Your task to perform on an android device: View the shopping cart on target. Search for "razer blade" on target, select the first entry, and add it to the cart. Image 0: 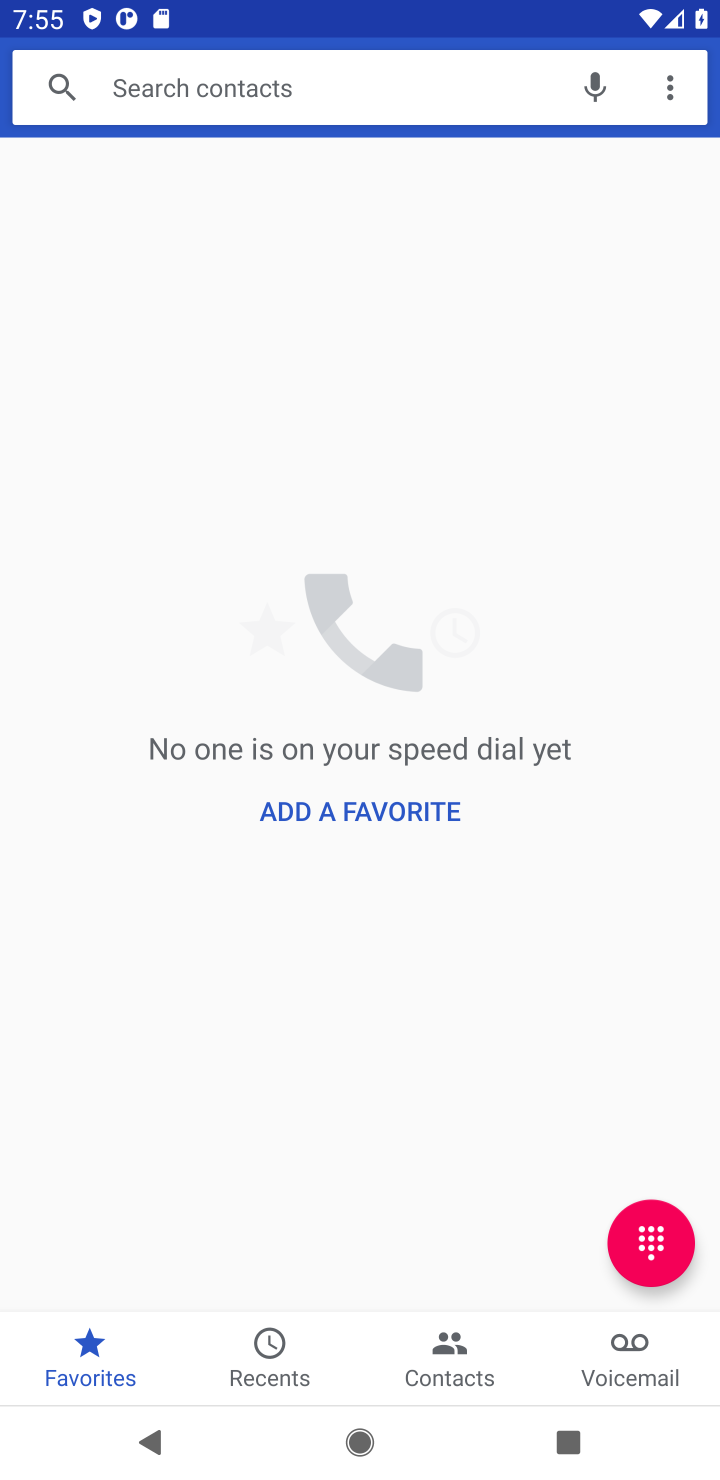
Step 0: press home button
Your task to perform on an android device: View the shopping cart on target. Search for "razer blade" on target, select the first entry, and add it to the cart. Image 1: 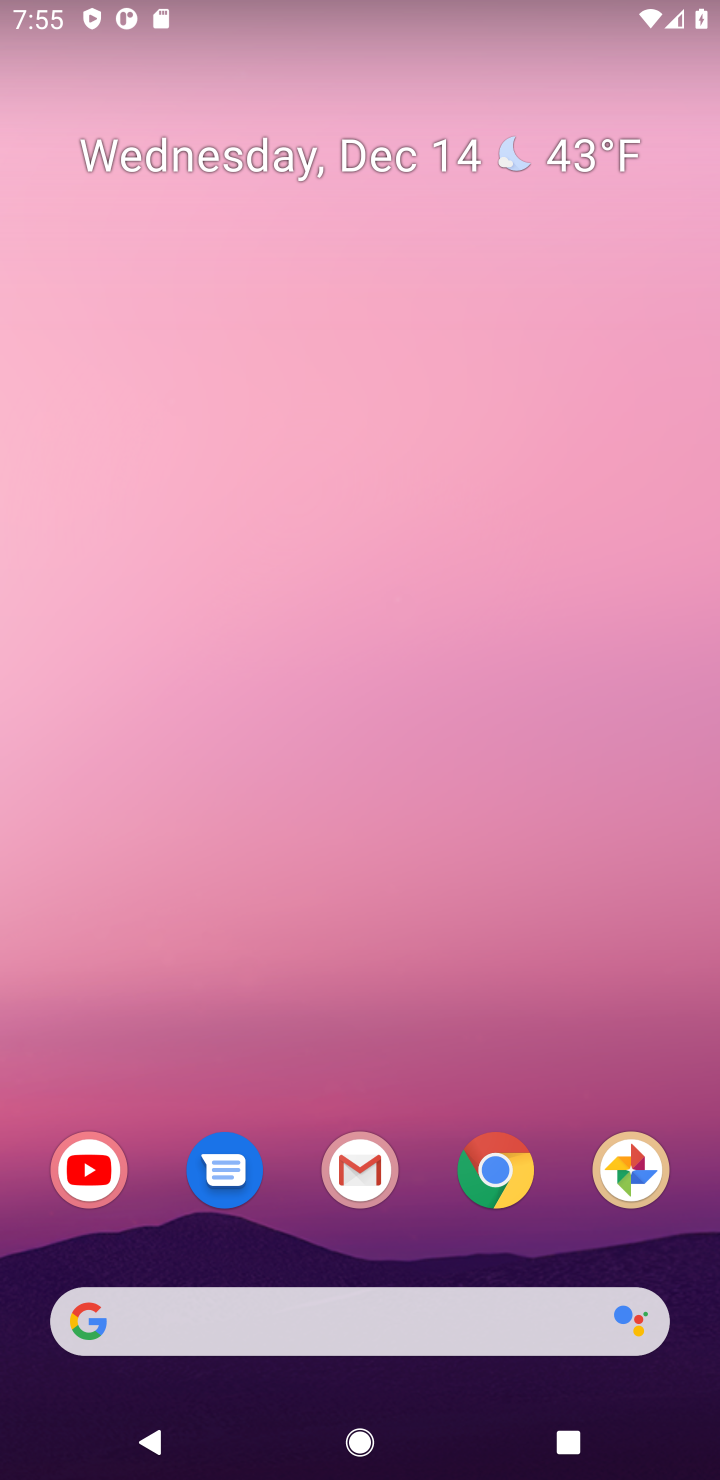
Step 1: click (489, 1172)
Your task to perform on an android device: View the shopping cart on target. Search for "razer blade" on target, select the first entry, and add it to the cart. Image 2: 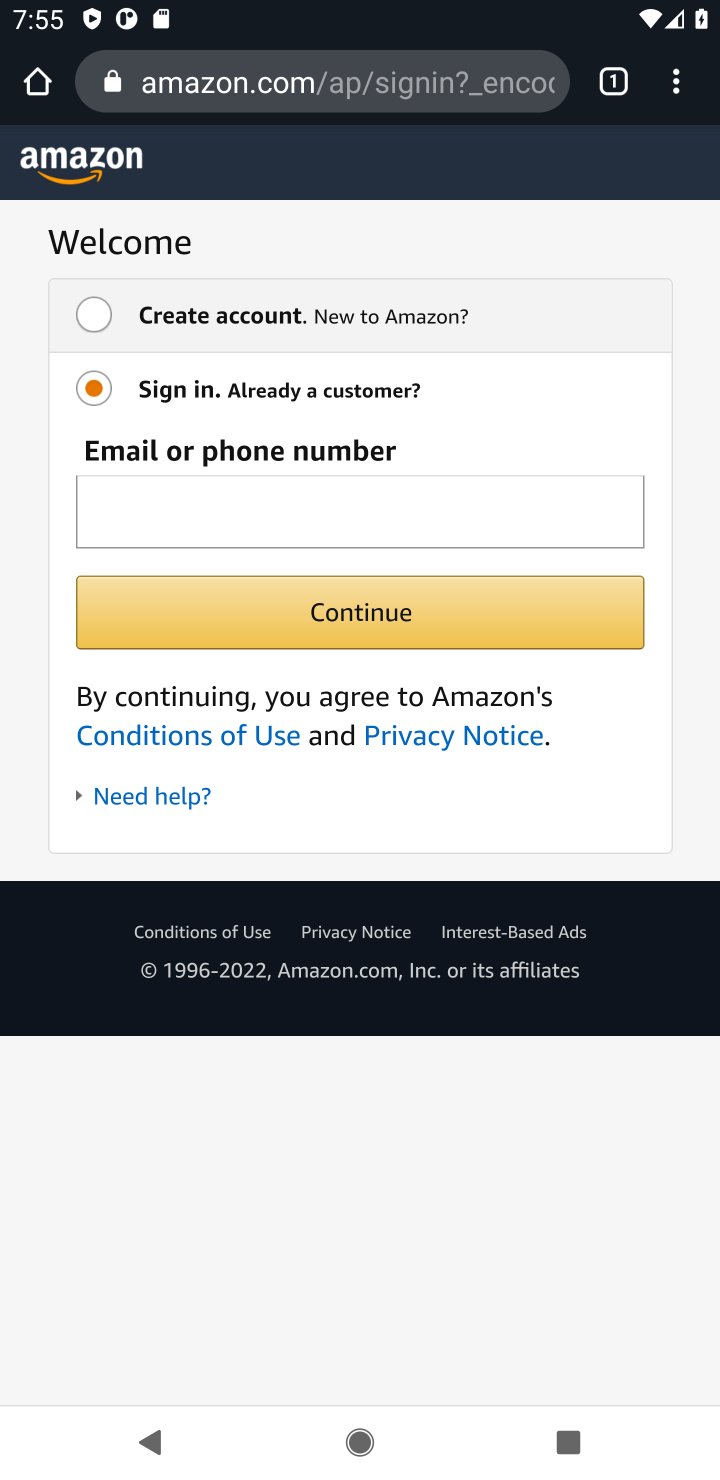
Step 2: click (415, 88)
Your task to perform on an android device: View the shopping cart on target. Search for "razer blade" on target, select the first entry, and add it to the cart. Image 3: 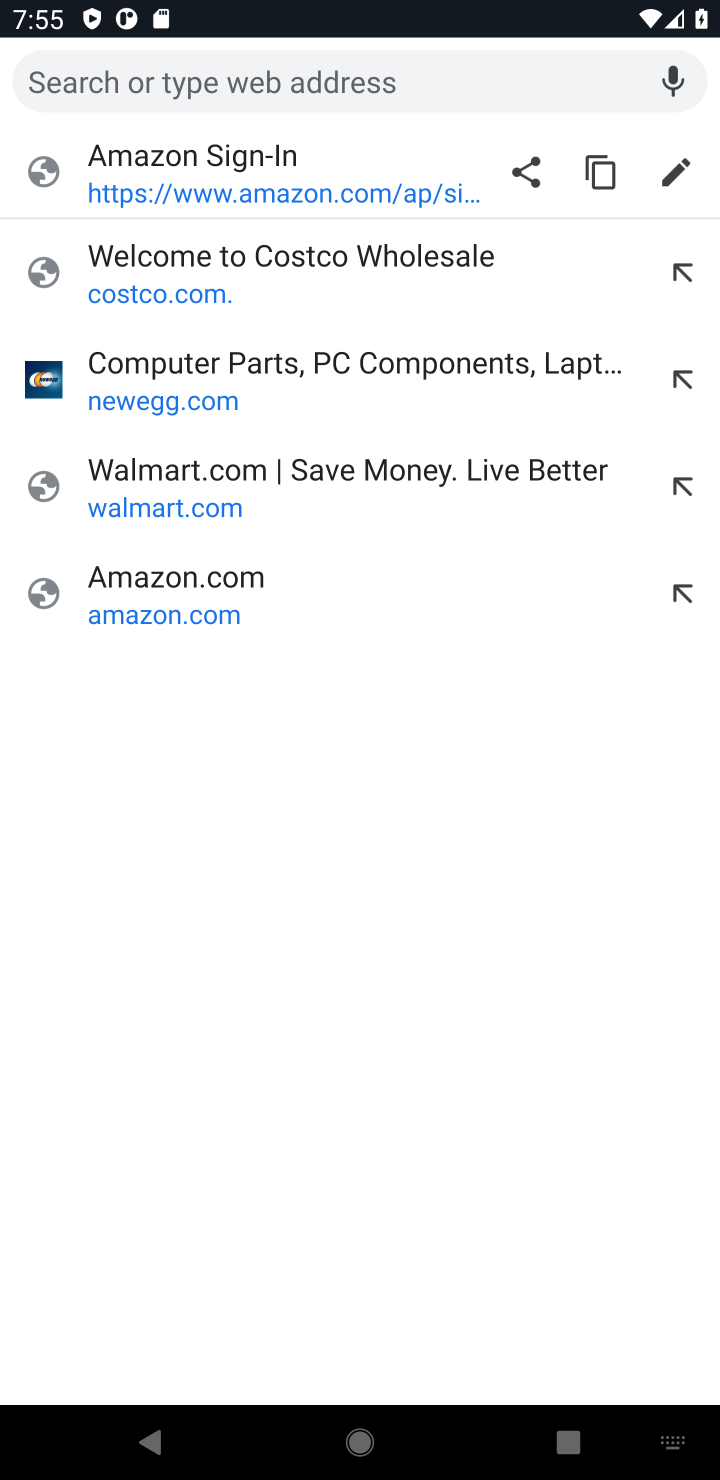
Step 3: type "TARGET"
Your task to perform on an android device: View the shopping cart on target. Search for "razer blade" on target, select the first entry, and add it to the cart. Image 4: 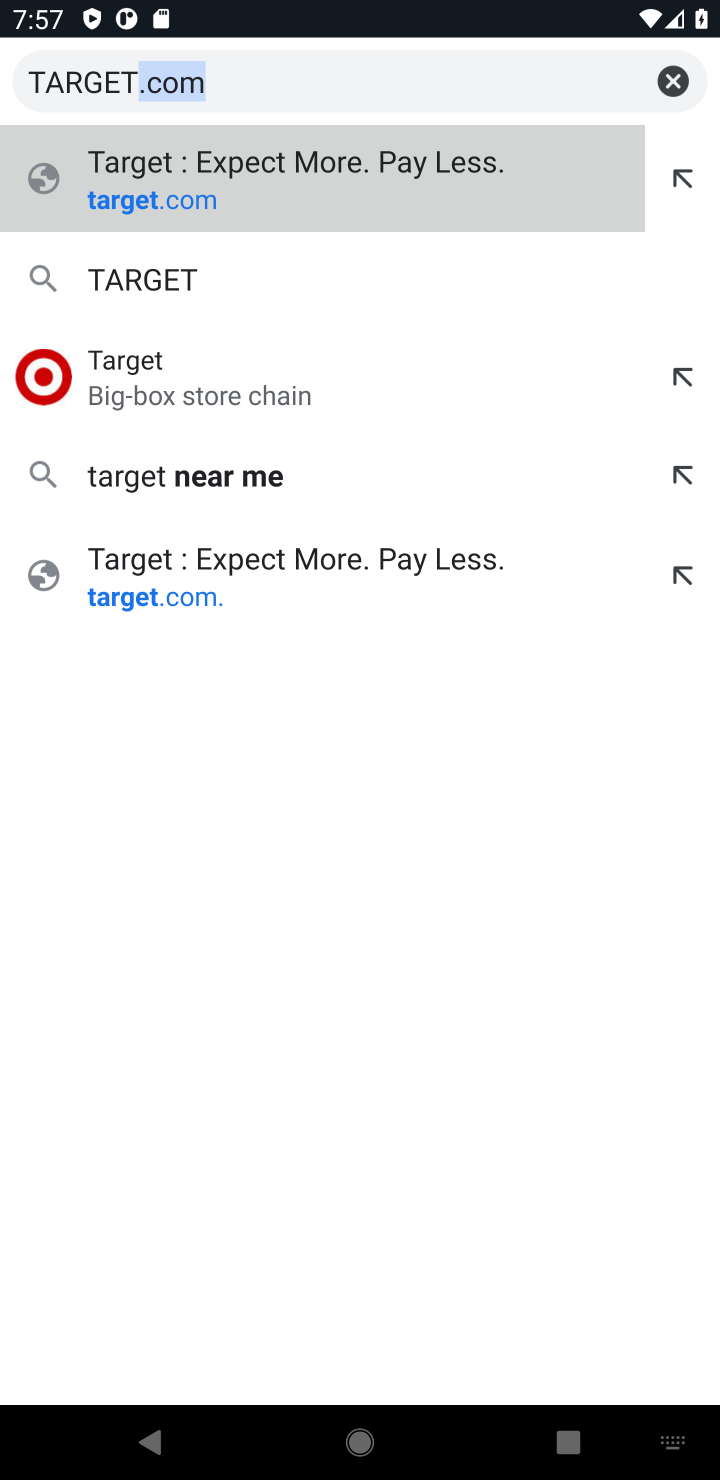
Step 4: click (431, 162)
Your task to perform on an android device: View the shopping cart on target. Search for "razer blade" on target, select the first entry, and add it to the cart. Image 5: 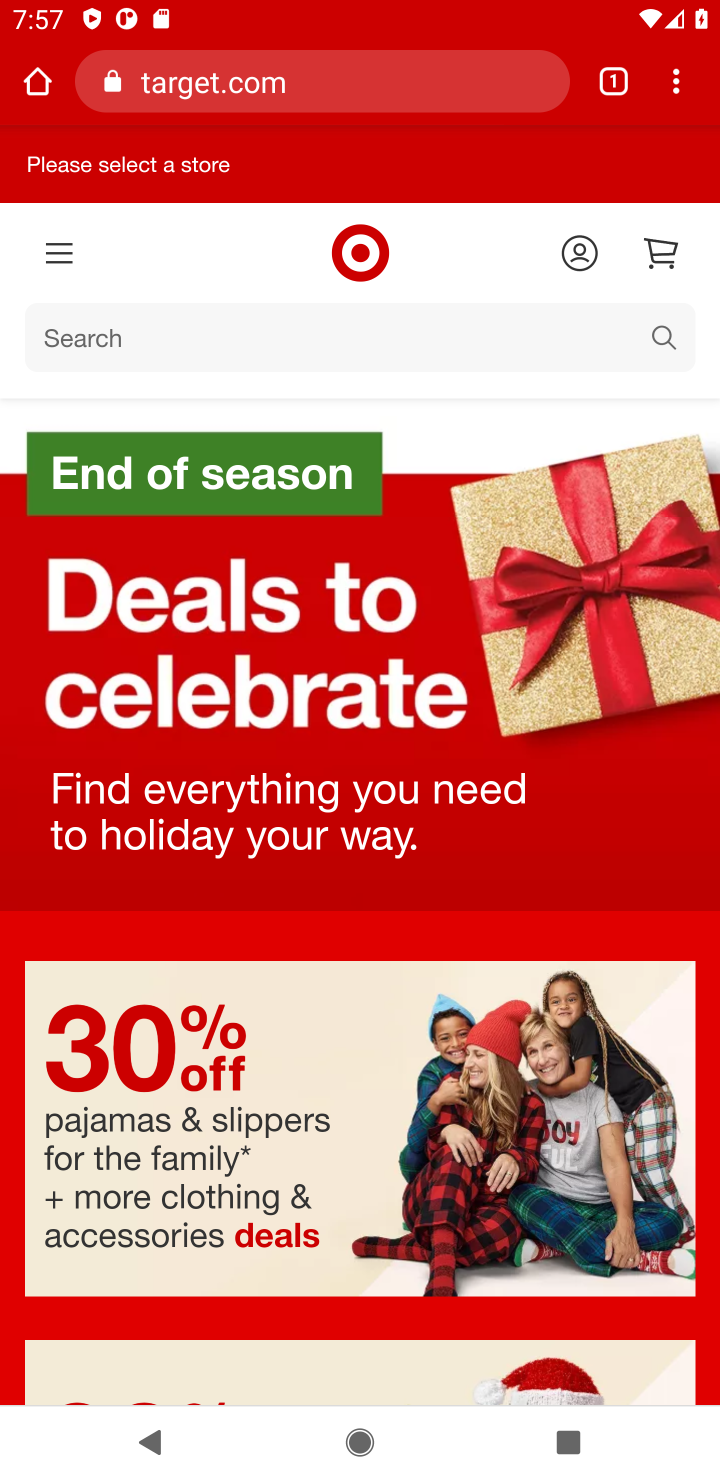
Step 5: click (484, 345)
Your task to perform on an android device: View the shopping cart on target. Search for "razer blade" on target, select the first entry, and add it to the cart. Image 6: 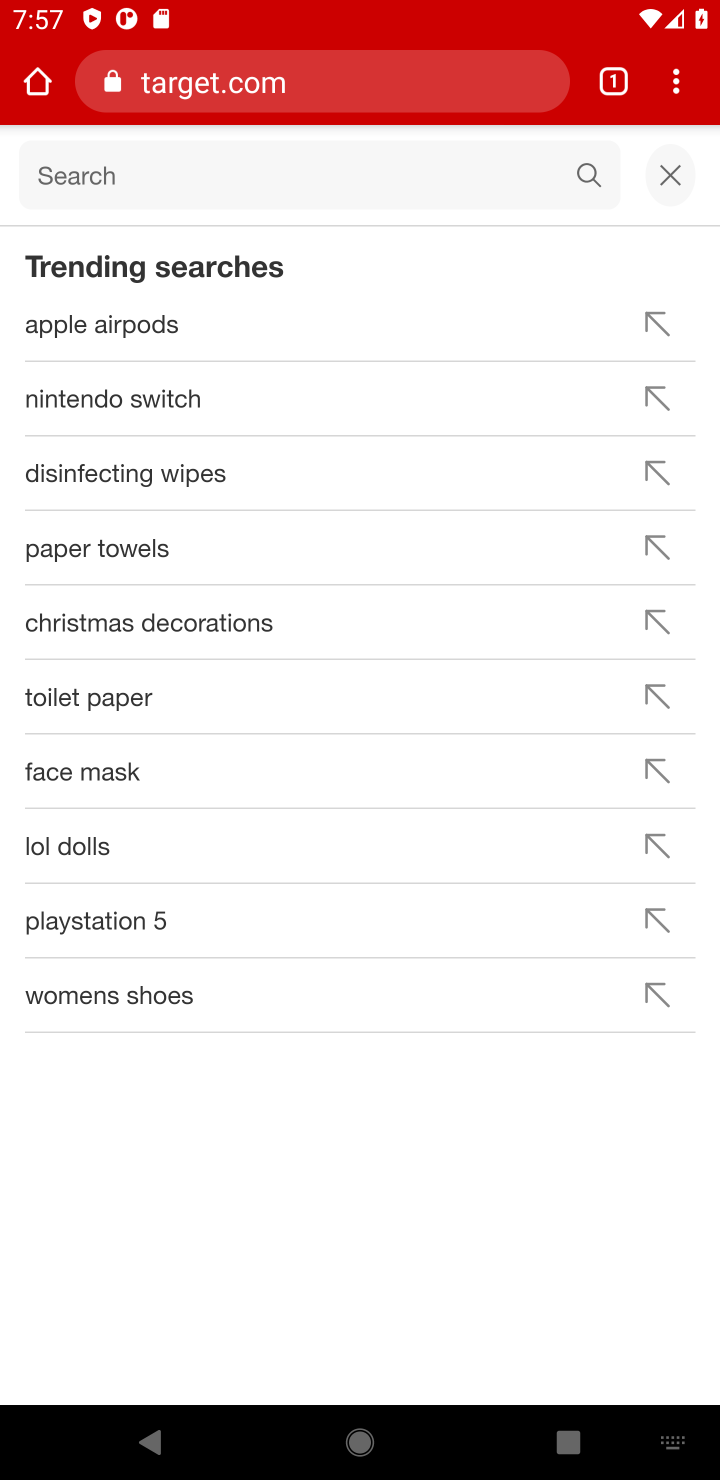
Step 6: type "RAZER BLADE"
Your task to perform on an android device: View the shopping cart on target. Search for "razer blade" on target, select the first entry, and add it to the cart. Image 7: 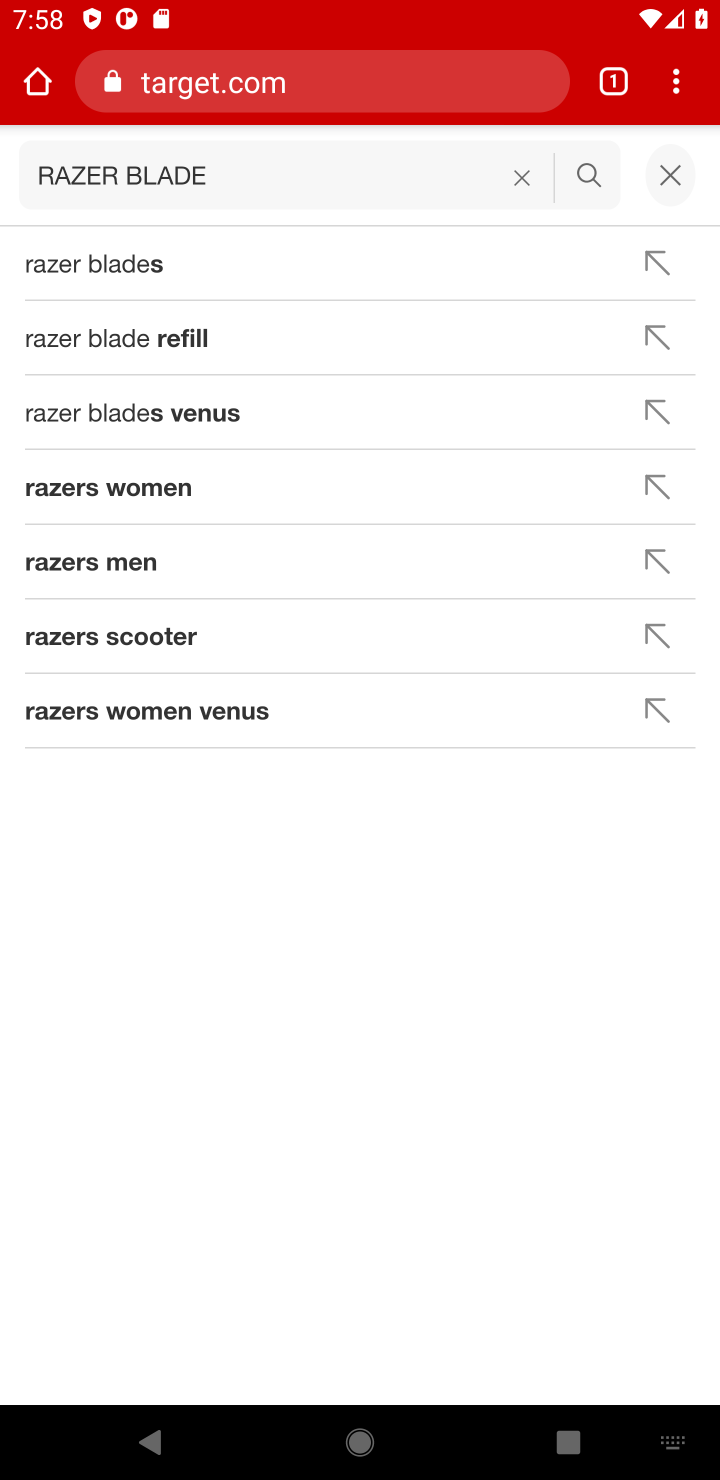
Step 7: click (112, 262)
Your task to perform on an android device: View the shopping cart on target. Search for "razer blade" on target, select the first entry, and add it to the cart. Image 8: 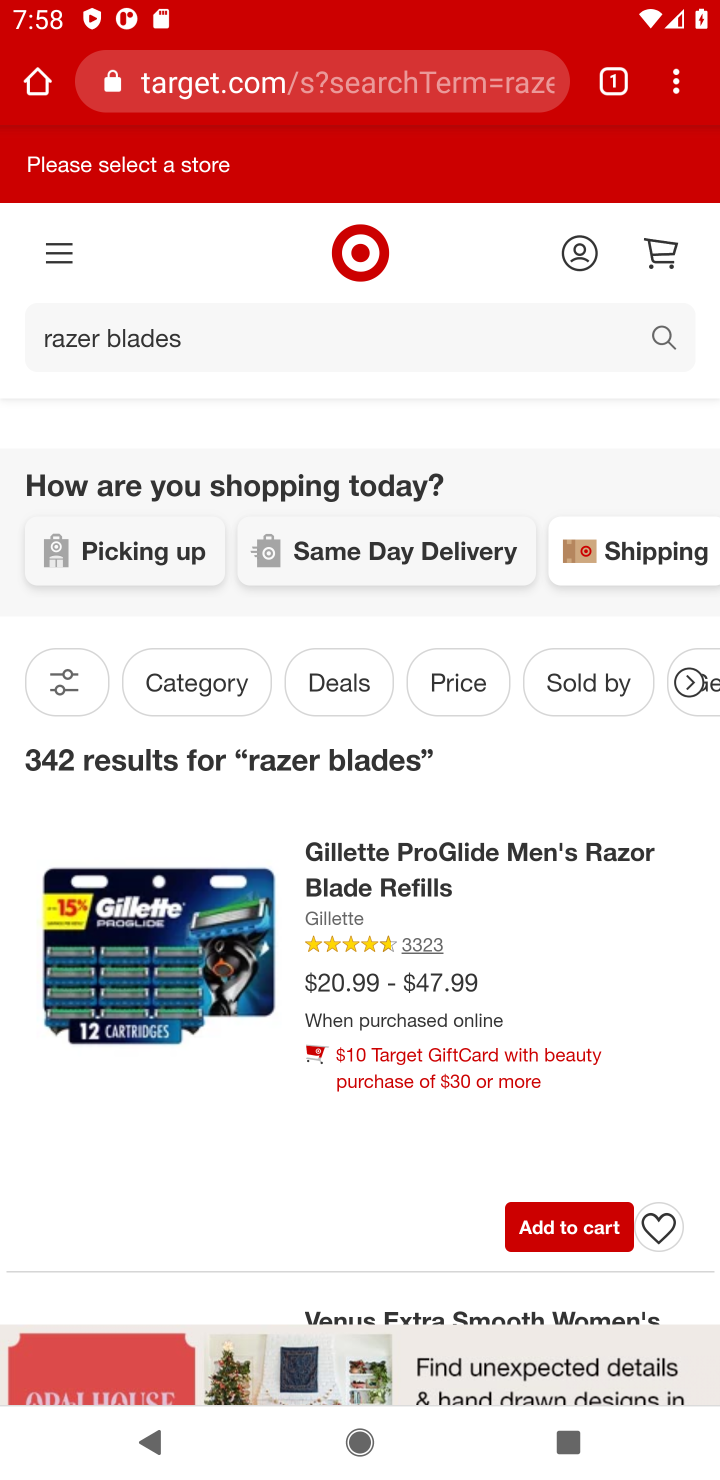
Step 8: click (579, 882)
Your task to perform on an android device: View the shopping cart on target. Search for "razer blade" on target, select the first entry, and add it to the cart. Image 9: 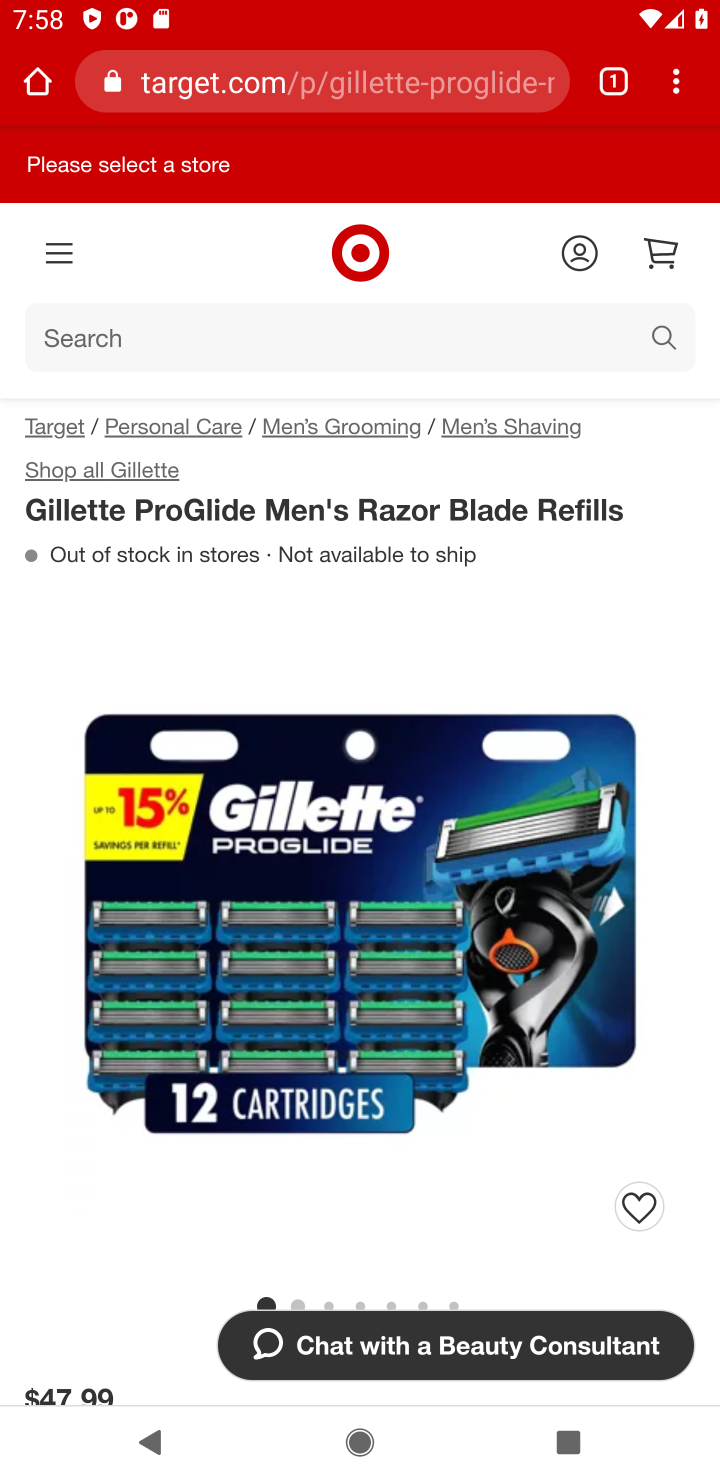
Step 9: drag from (517, 1159) to (433, 283)
Your task to perform on an android device: View the shopping cart on target. Search for "razer blade" on target, select the first entry, and add it to the cart. Image 10: 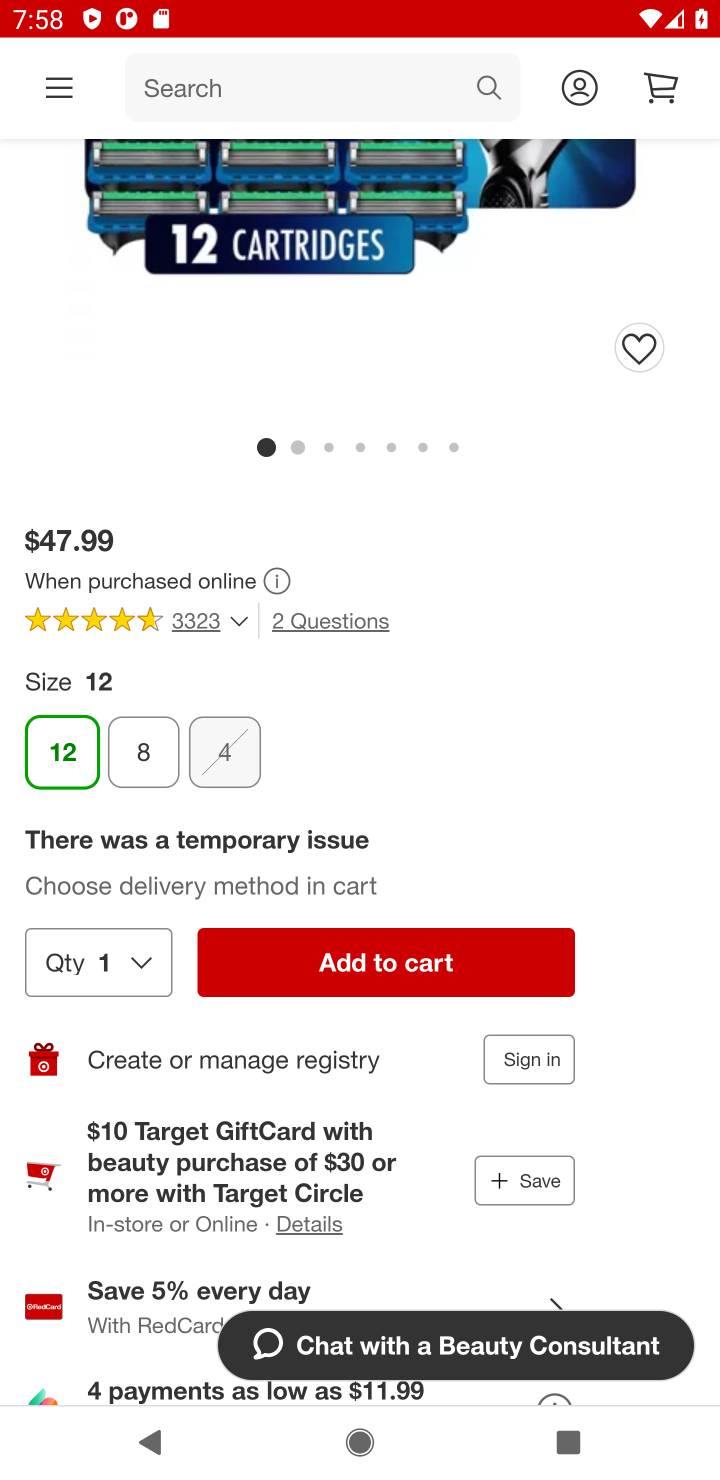
Step 10: click (361, 959)
Your task to perform on an android device: View the shopping cart on target. Search for "razer blade" on target, select the first entry, and add it to the cart. Image 11: 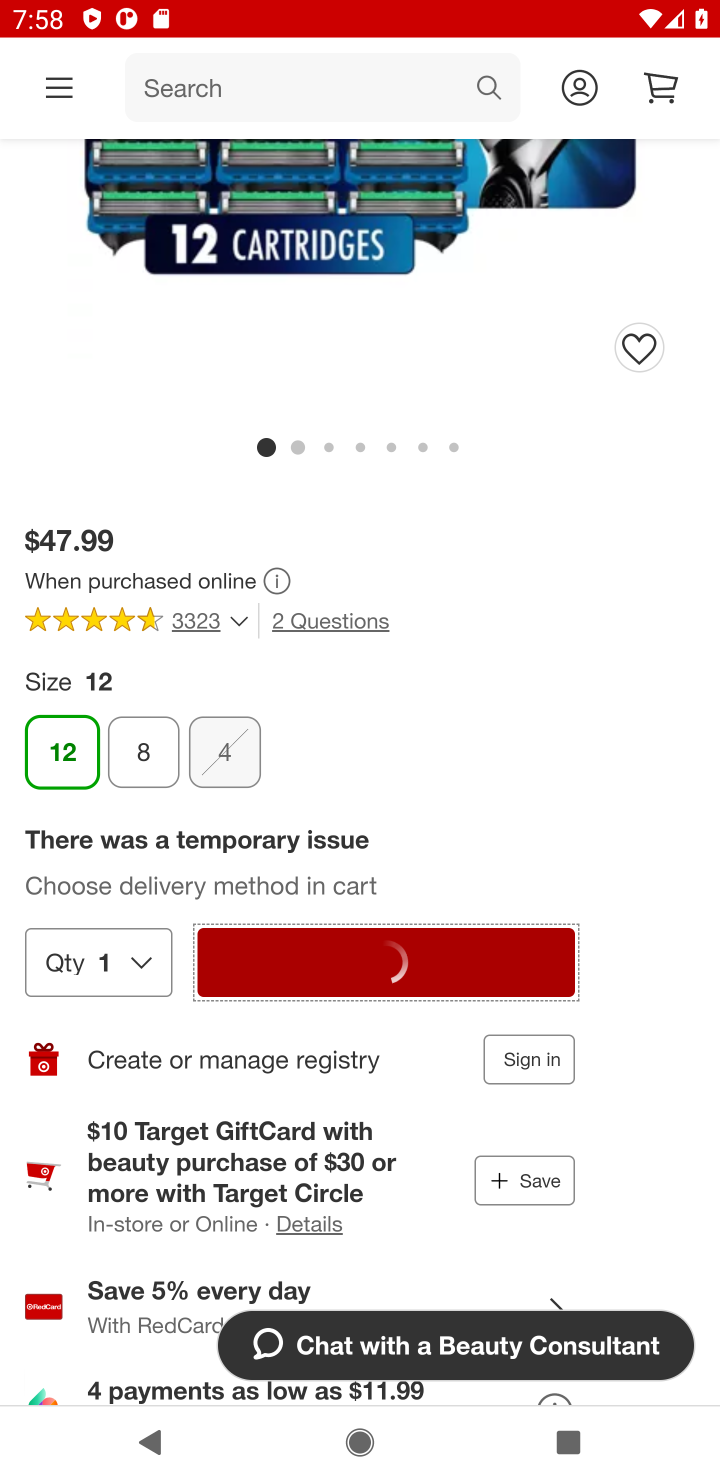
Step 11: task complete